Your task to perform on an android device: Add jbl flip 4 to the cart on target, then select checkout. Image 0: 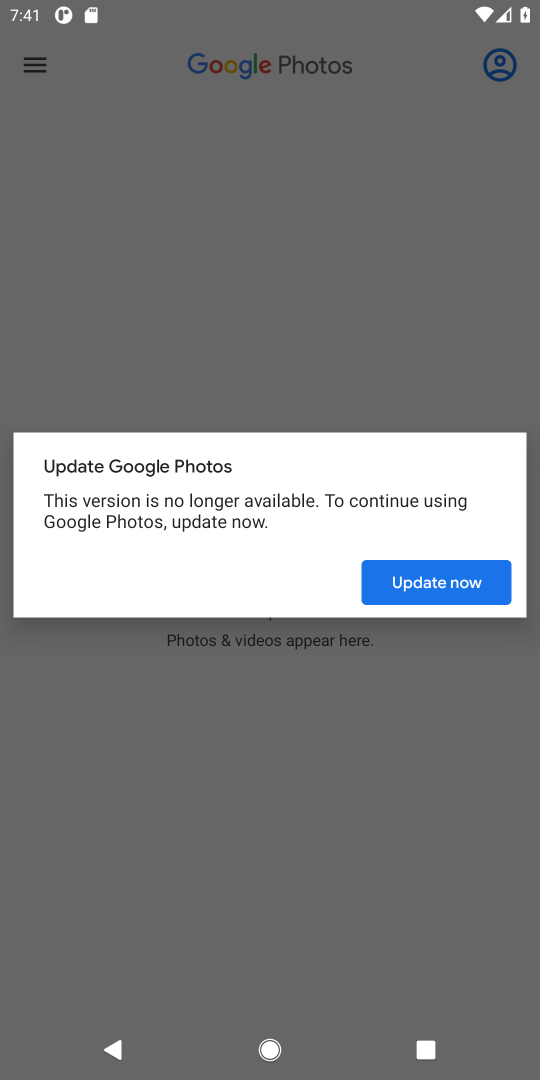
Step 0: press home button
Your task to perform on an android device: Add jbl flip 4 to the cart on target, then select checkout. Image 1: 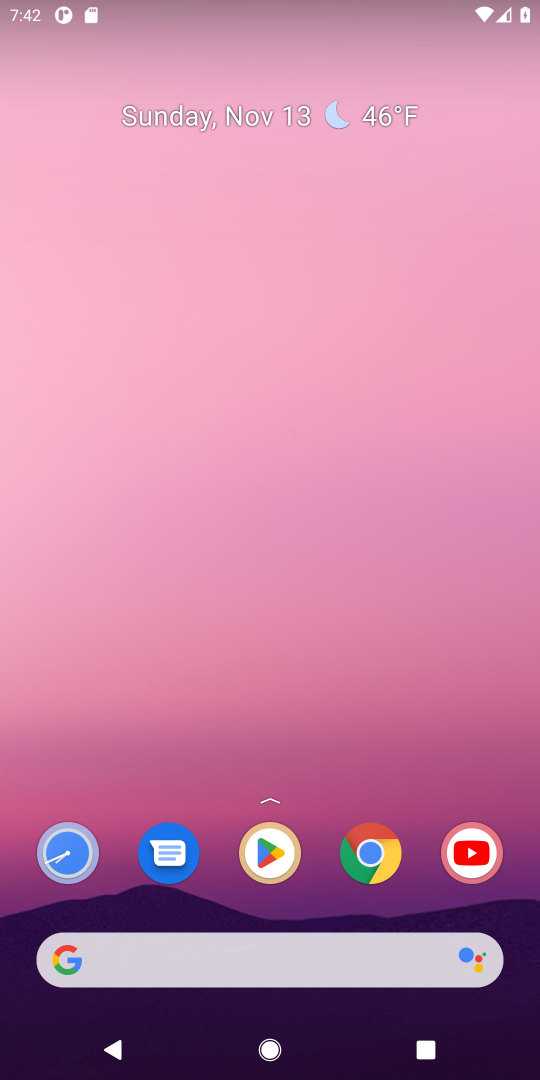
Step 1: click (109, 955)
Your task to perform on an android device: Add jbl flip 4 to the cart on target, then select checkout. Image 2: 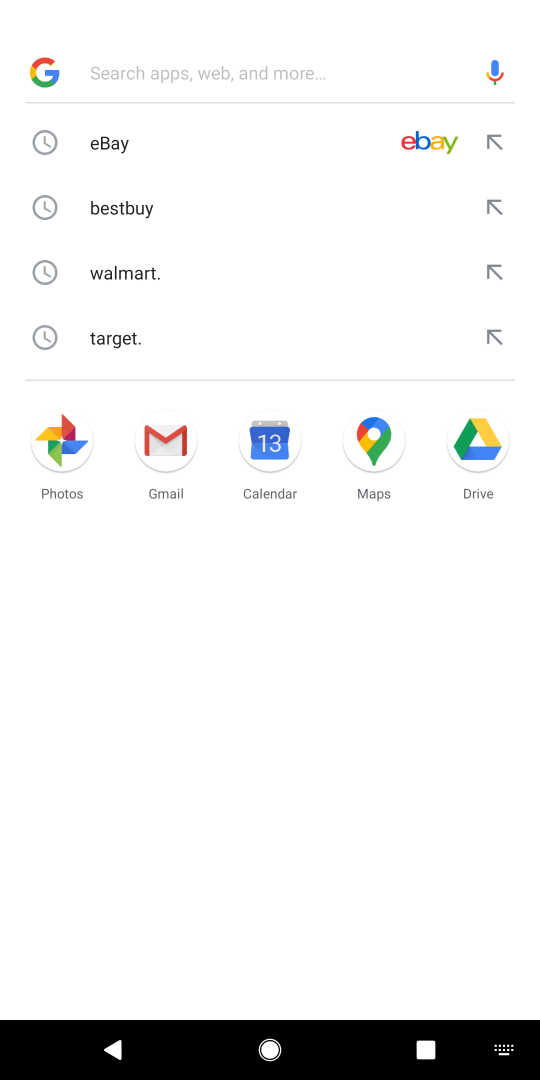
Step 2: type "target"
Your task to perform on an android device: Add jbl flip 4 to the cart on target, then select checkout. Image 3: 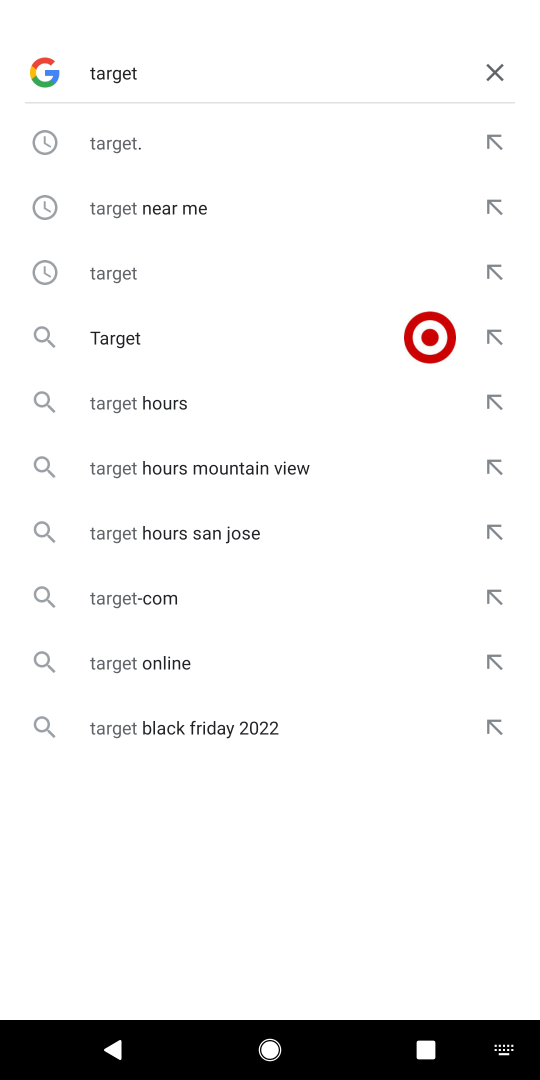
Step 3: press enter
Your task to perform on an android device: Add jbl flip 4 to the cart on target, then select checkout. Image 4: 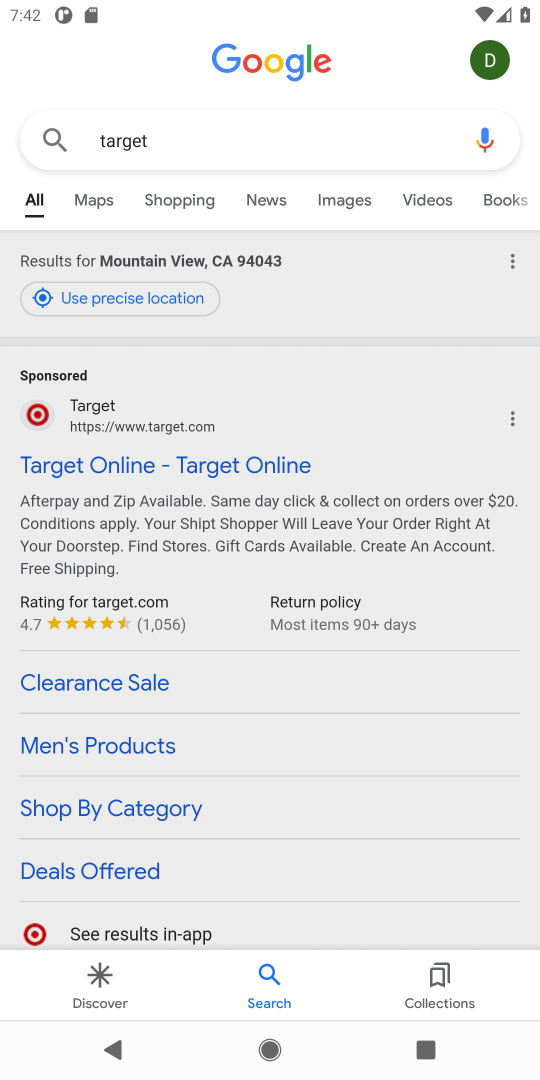
Step 4: click (92, 466)
Your task to perform on an android device: Add jbl flip 4 to the cart on target, then select checkout. Image 5: 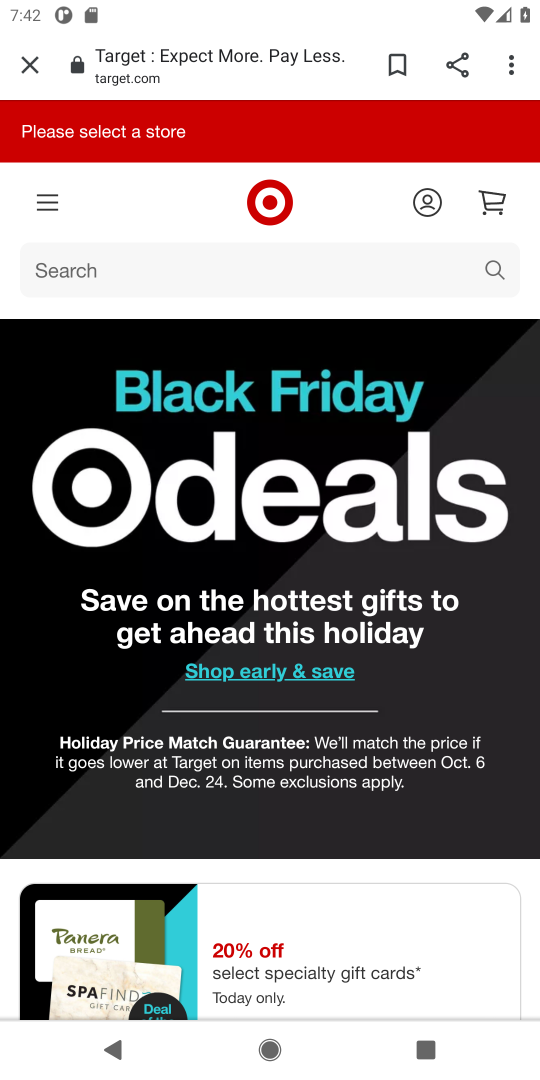
Step 5: click (71, 274)
Your task to perform on an android device: Add jbl flip 4 to the cart on target, then select checkout. Image 6: 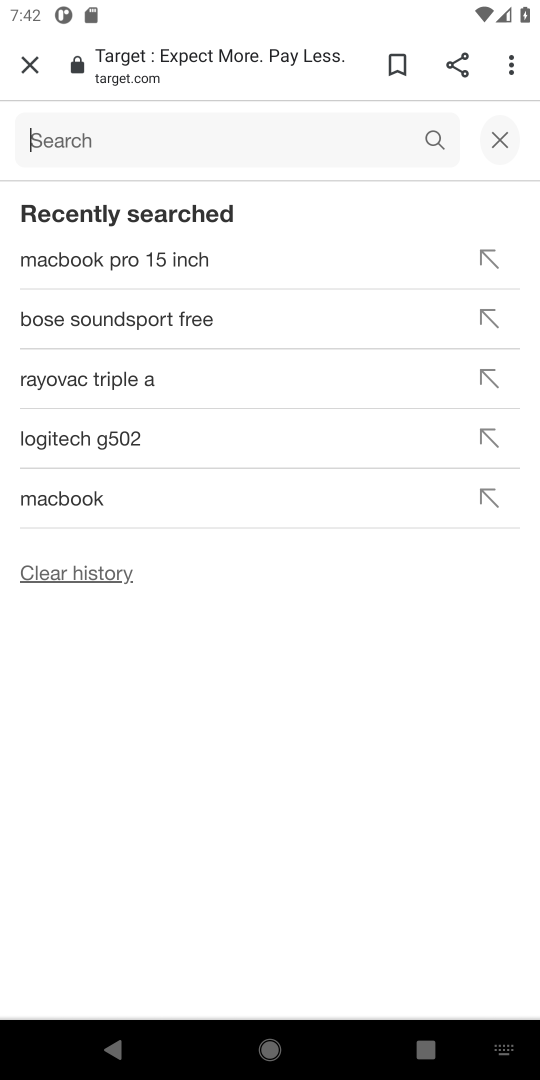
Step 6: type "jbl flip 4"
Your task to perform on an android device: Add jbl flip 4 to the cart on target, then select checkout. Image 7: 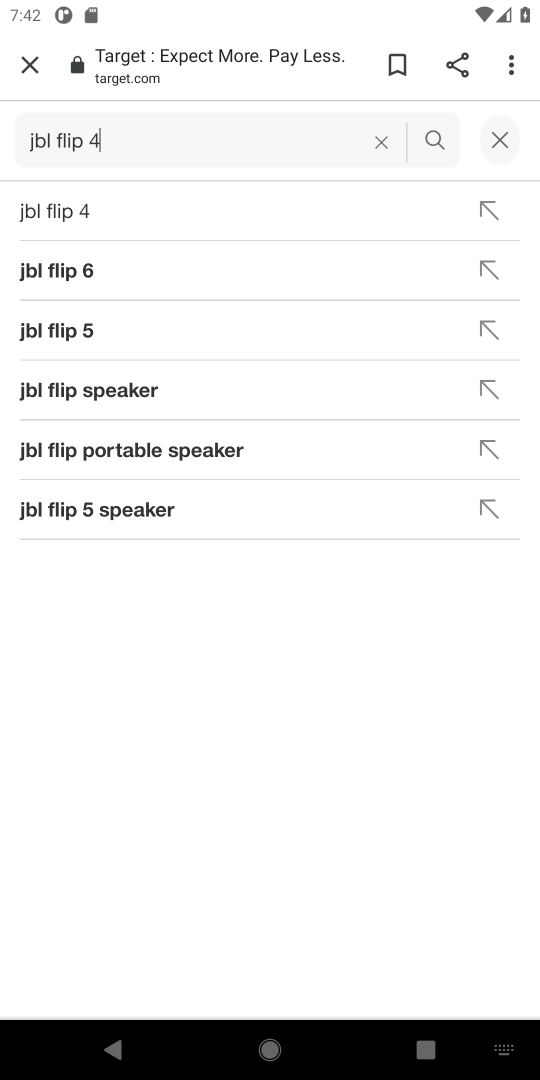
Step 7: press enter
Your task to perform on an android device: Add jbl flip 4 to the cart on target, then select checkout. Image 8: 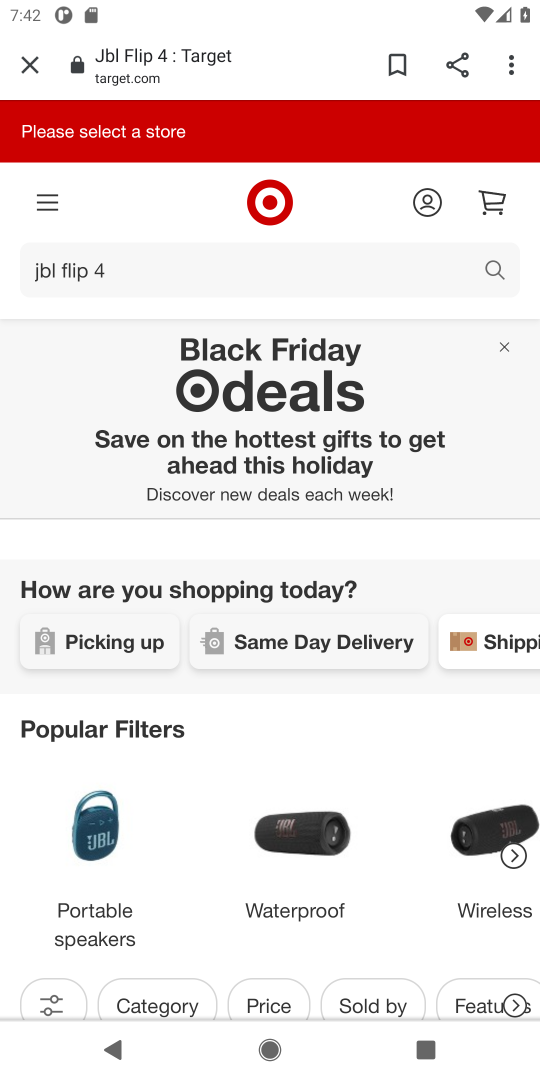
Step 8: drag from (220, 882) to (219, 390)
Your task to perform on an android device: Add jbl flip 4 to the cart on target, then select checkout. Image 9: 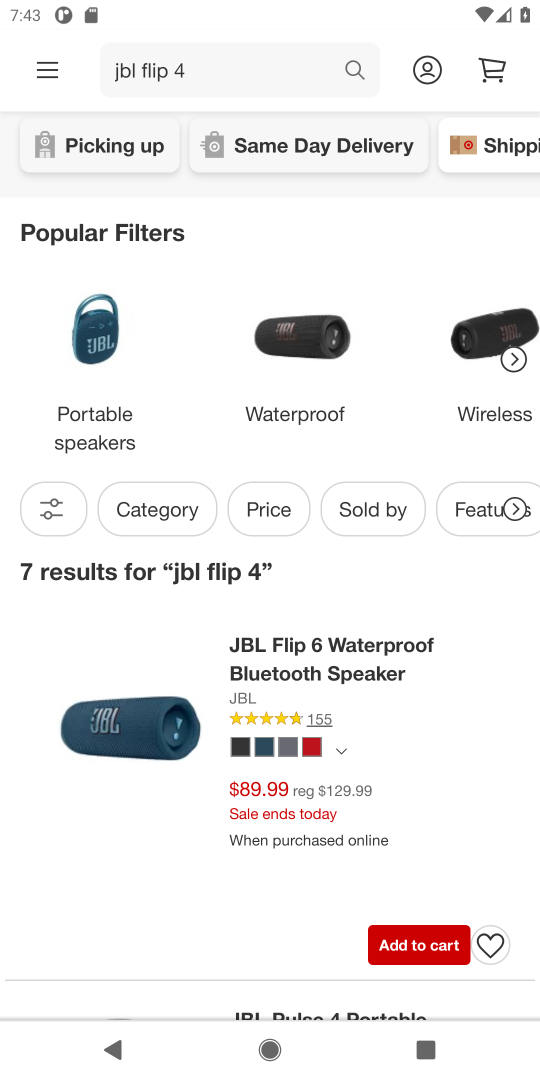
Step 9: drag from (251, 848) to (301, 429)
Your task to perform on an android device: Add jbl flip 4 to the cart on target, then select checkout. Image 10: 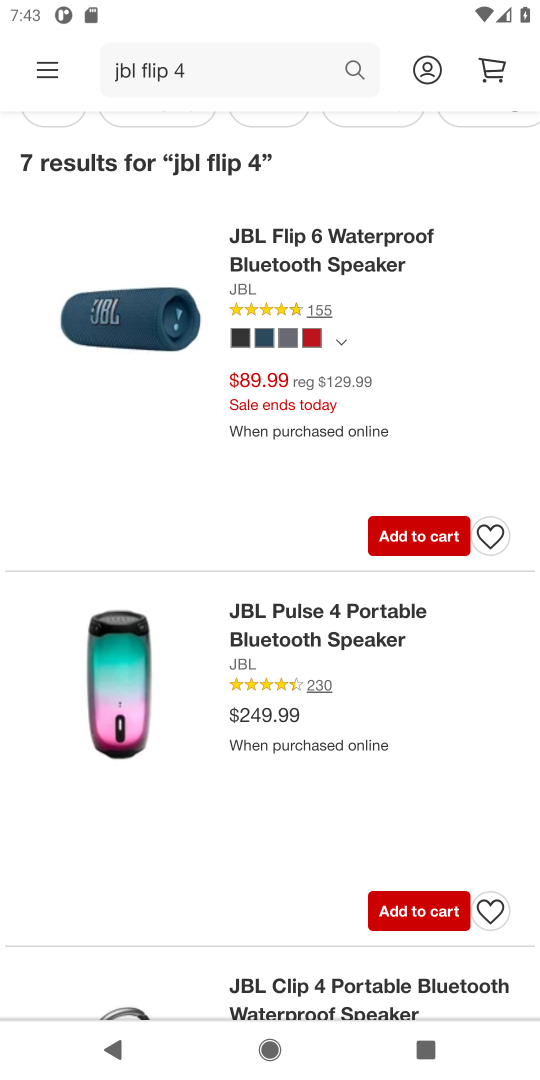
Step 10: drag from (310, 821) to (318, 531)
Your task to perform on an android device: Add jbl flip 4 to the cart on target, then select checkout. Image 11: 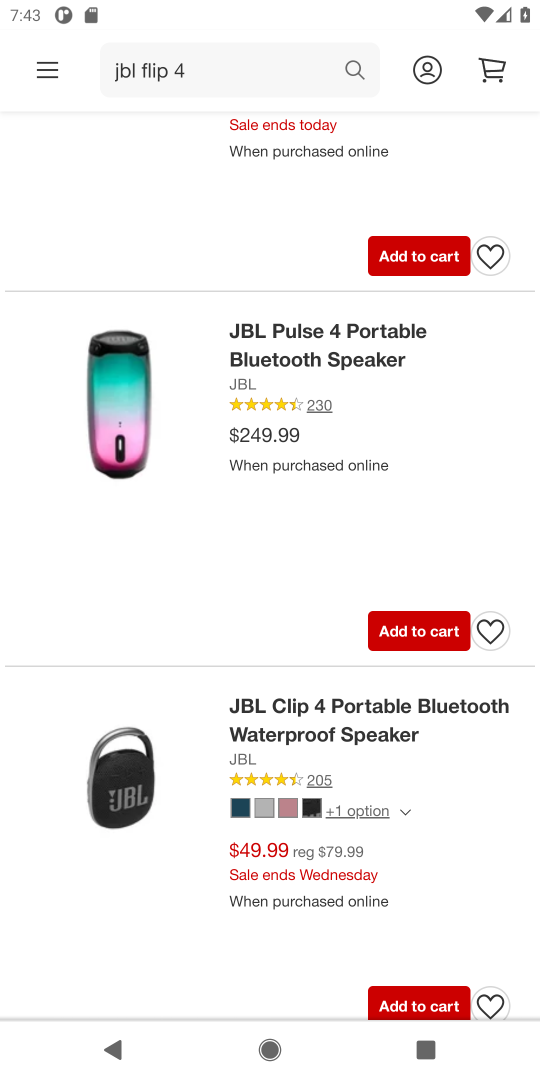
Step 11: click (410, 624)
Your task to perform on an android device: Add jbl flip 4 to the cart on target, then select checkout. Image 12: 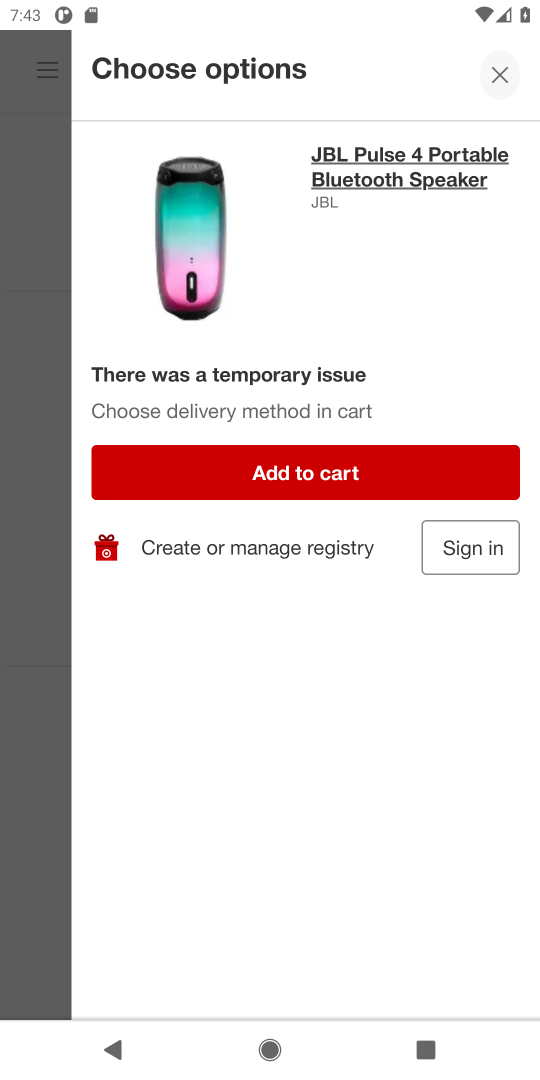
Step 12: click (275, 473)
Your task to perform on an android device: Add jbl flip 4 to the cart on target, then select checkout. Image 13: 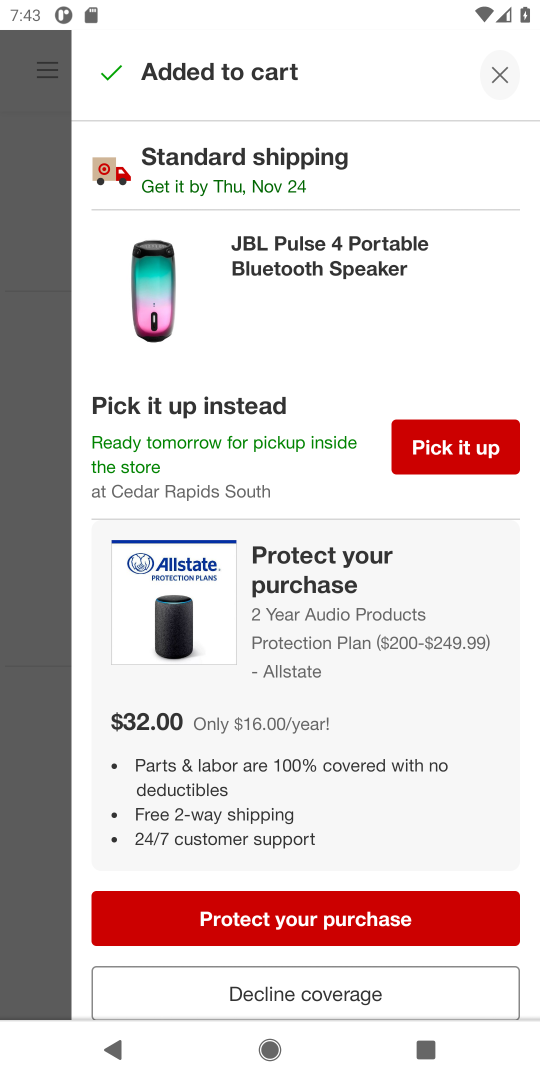
Step 13: click (346, 988)
Your task to perform on an android device: Add jbl flip 4 to the cart on target, then select checkout. Image 14: 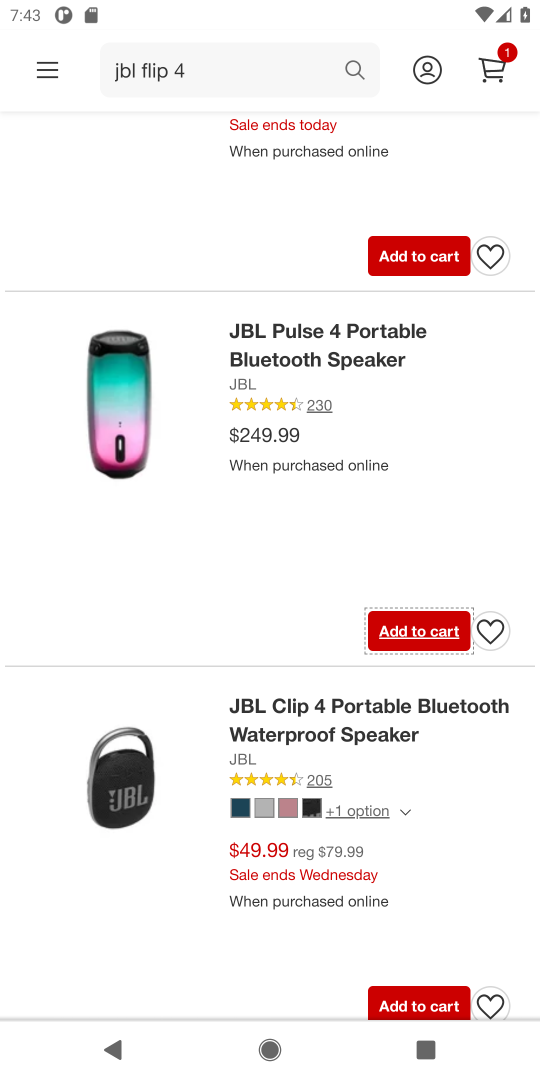
Step 14: click (493, 66)
Your task to perform on an android device: Add jbl flip 4 to the cart on target, then select checkout. Image 15: 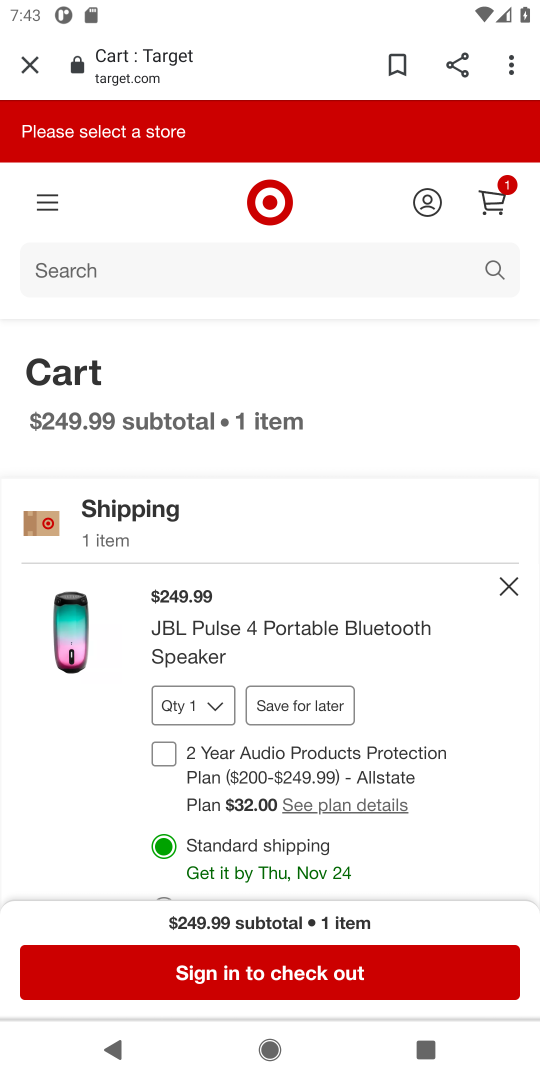
Step 15: click (274, 985)
Your task to perform on an android device: Add jbl flip 4 to the cart on target, then select checkout. Image 16: 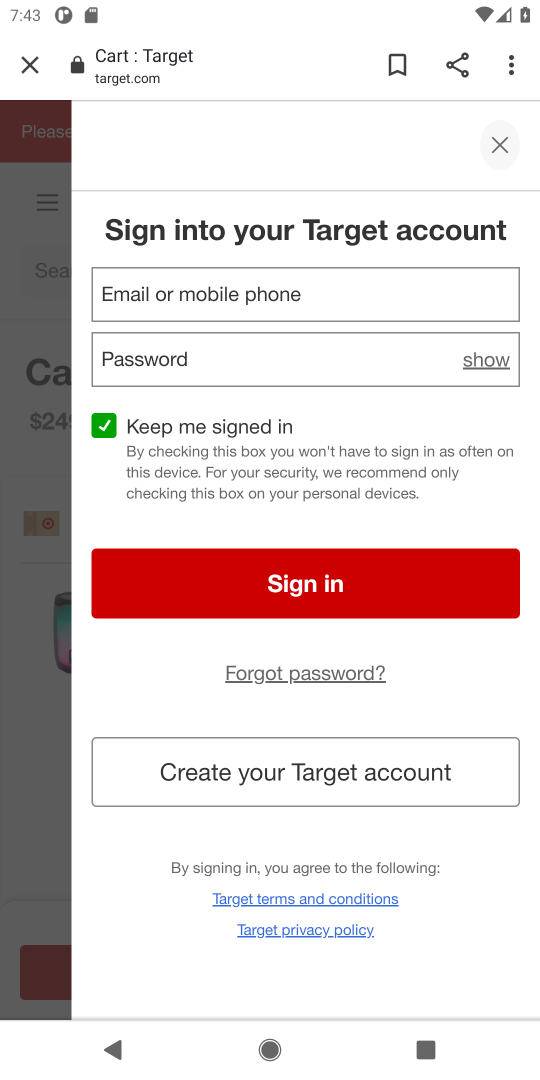
Step 16: task complete